Your task to perform on an android device: add a contact Image 0: 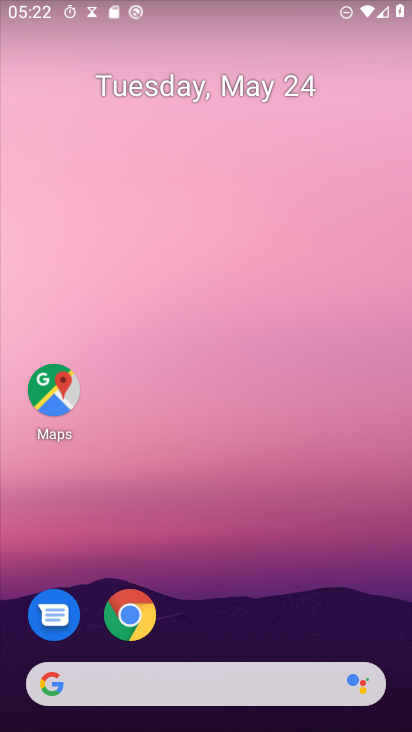
Step 0: drag from (288, 551) to (357, 9)
Your task to perform on an android device: add a contact Image 1: 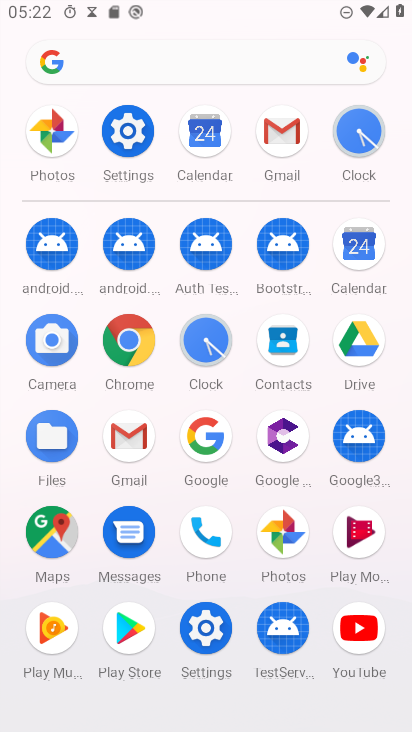
Step 1: click (277, 351)
Your task to perform on an android device: add a contact Image 2: 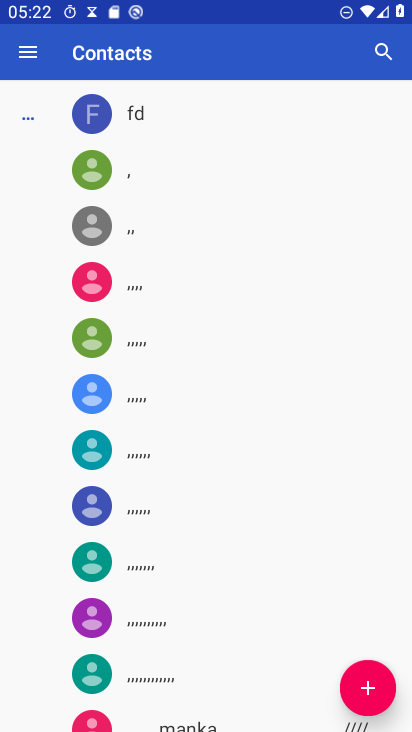
Step 2: click (351, 680)
Your task to perform on an android device: add a contact Image 3: 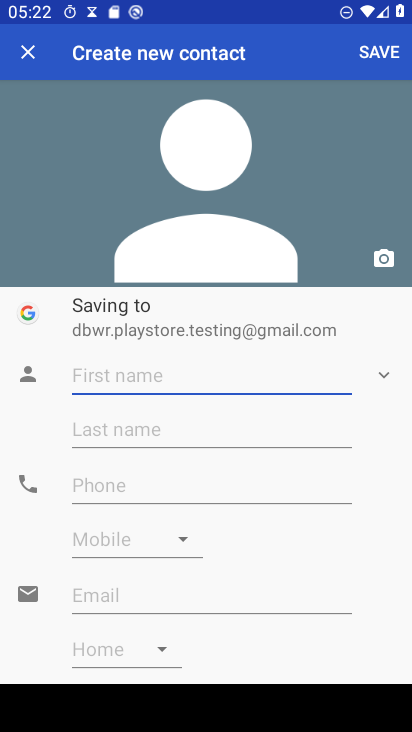
Step 3: click (133, 379)
Your task to perform on an android device: add a contact Image 4: 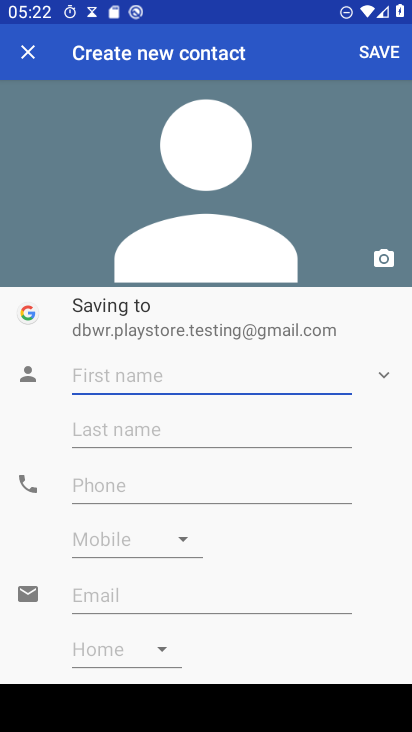
Step 4: type "ghgh"
Your task to perform on an android device: add a contact Image 5: 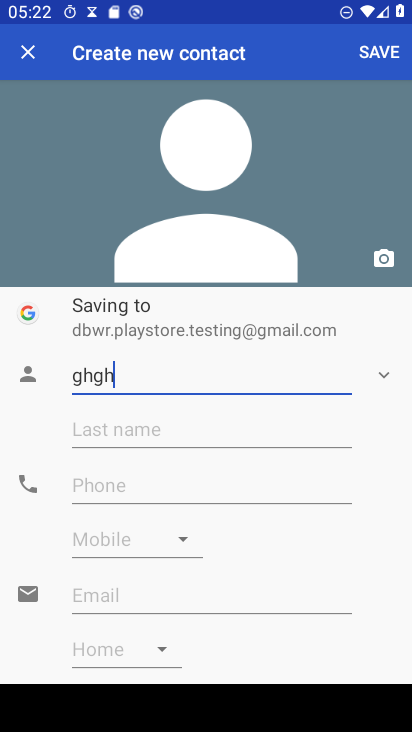
Step 5: click (146, 479)
Your task to perform on an android device: add a contact Image 6: 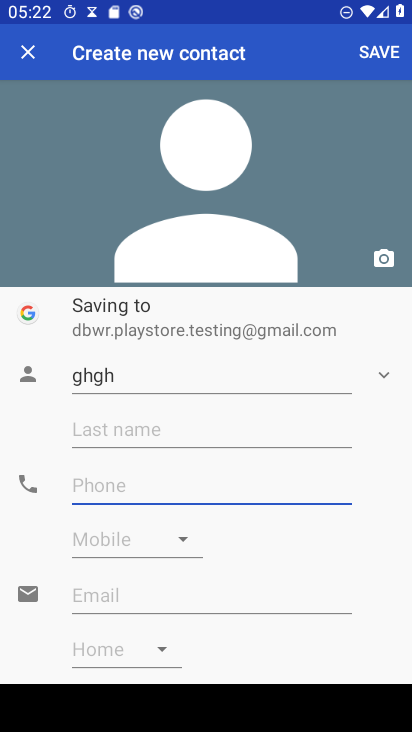
Step 6: type "6776"
Your task to perform on an android device: add a contact Image 7: 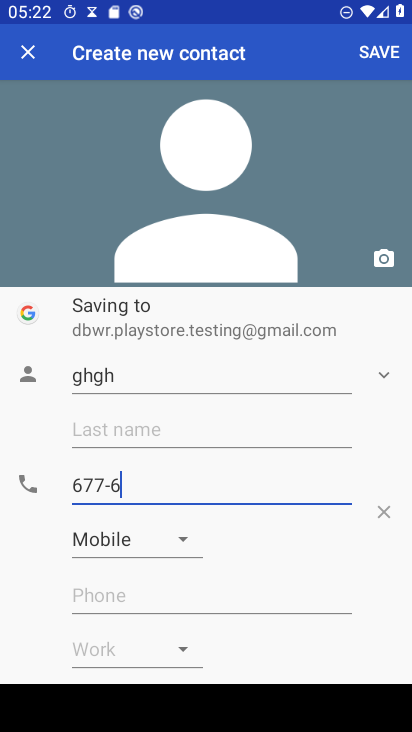
Step 7: click (371, 55)
Your task to perform on an android device: add a contact Image 8: 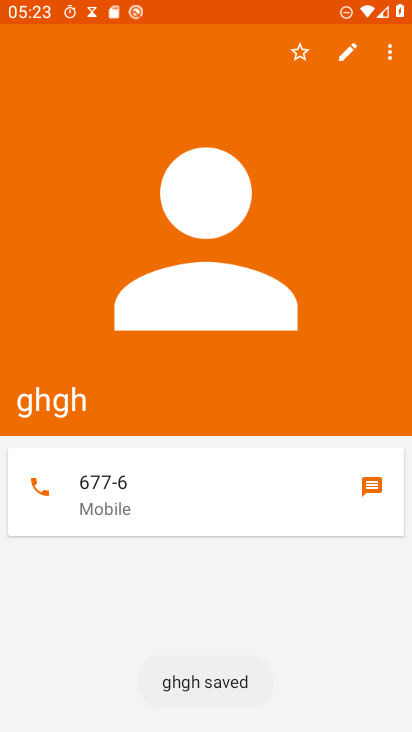
Step 8: task complete